Your task to perform on an android device: How big is the universe? Image 0: 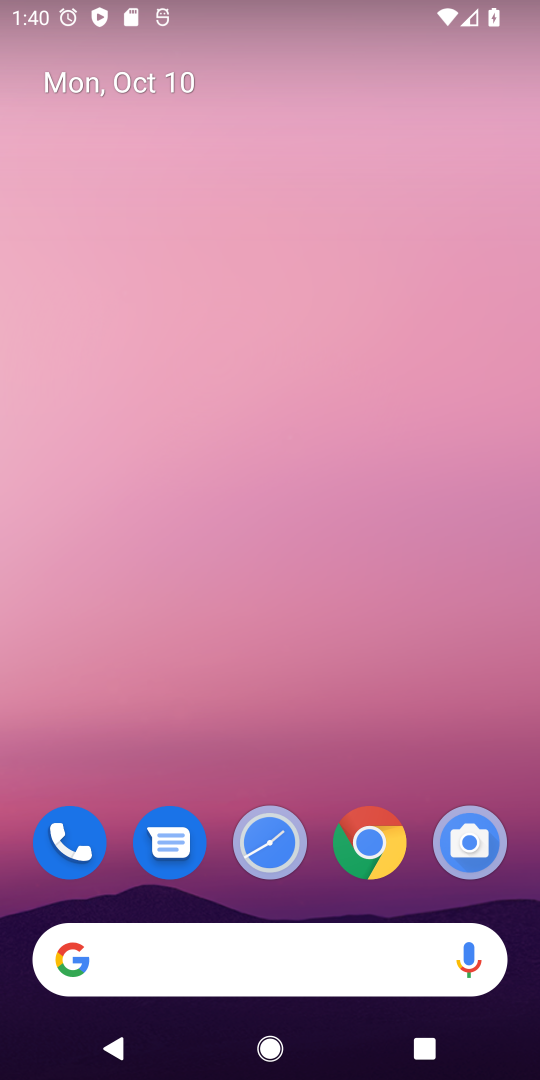
Step 0: click (361, 856)
Your task to perform on an android device: How big is the universe? Image 1: 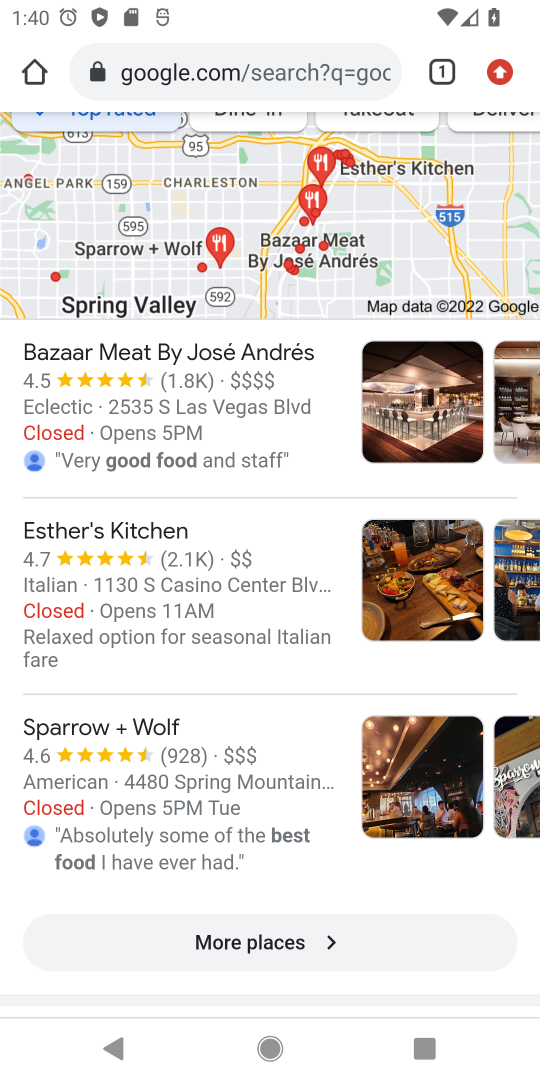
Step 1: click (228, 83)
Your task to perform on an android device: How big is the universe? Image 2: 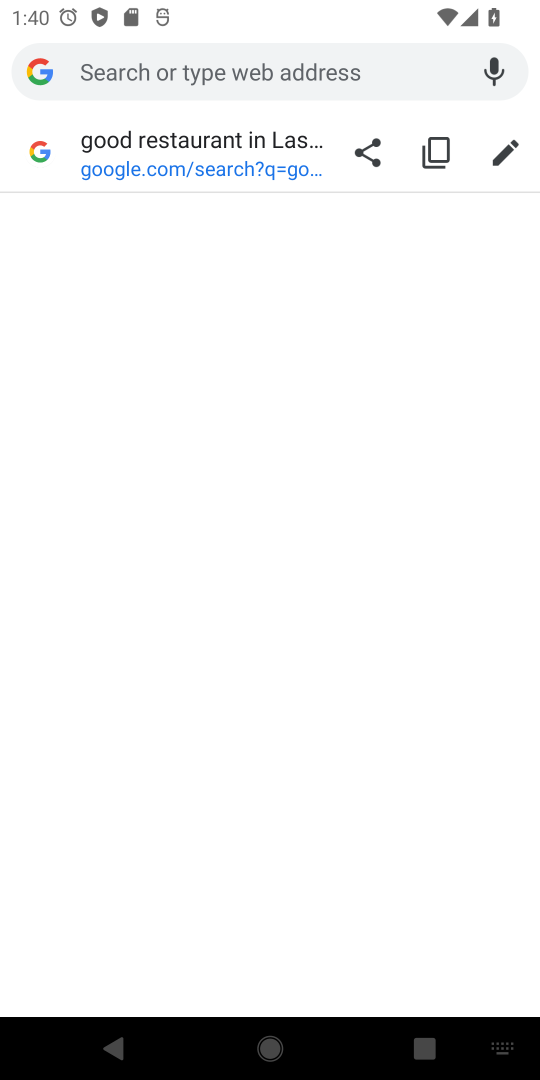
Step 2: type "how big is the universe"
Your task to perform on an android device: How big is the universe? Image 3: 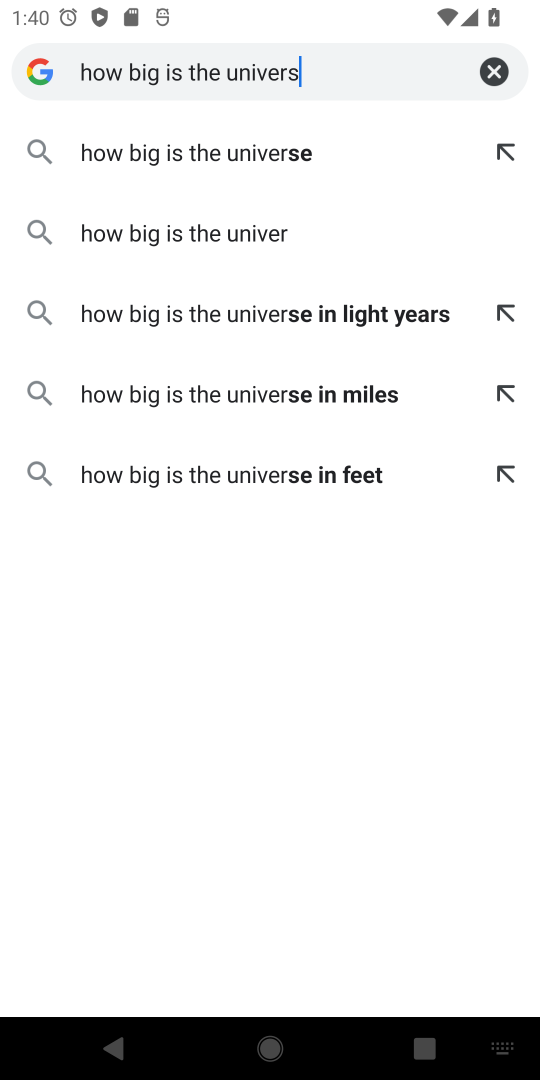
Step 3: type ""
Your task to perform on an android device: How big is the universe? Image 4: 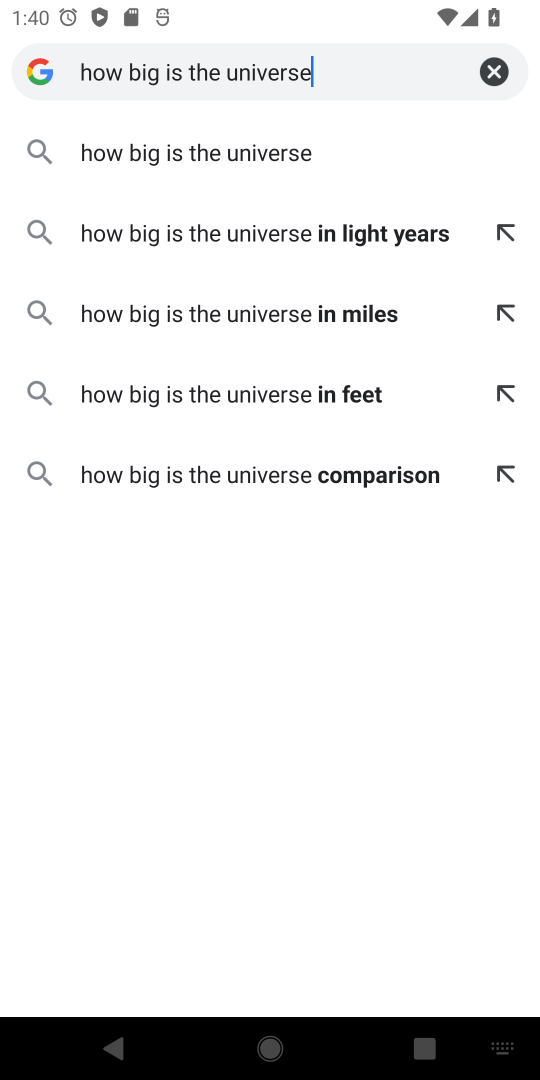
Step 4: press enter
Your task to perform on an android device: How big is the universe? Image 5: 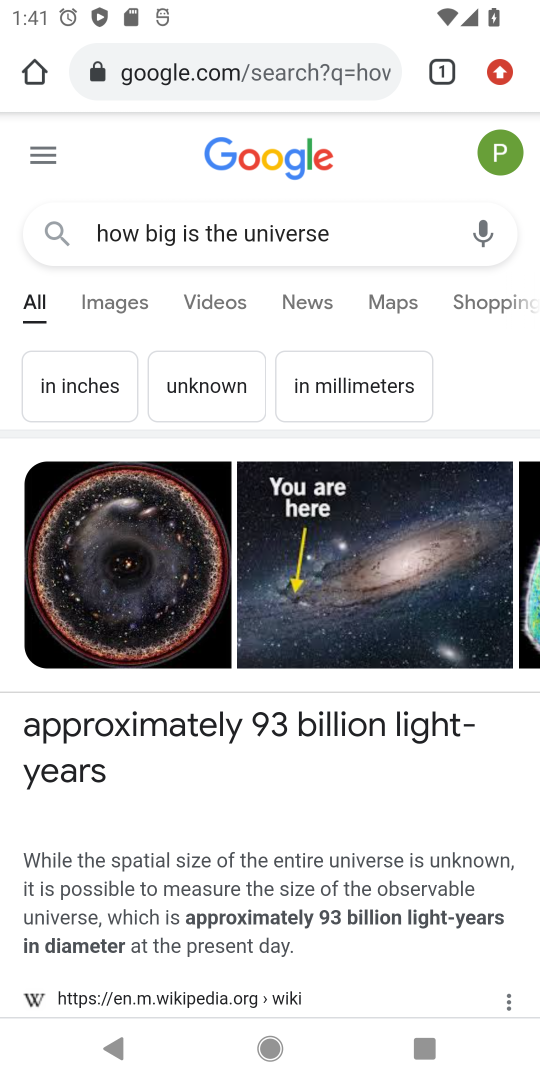
Step 5: drag from (307, 734) to (390, 368)
Your task to perform on an android device: How big is the universe? Image 6: 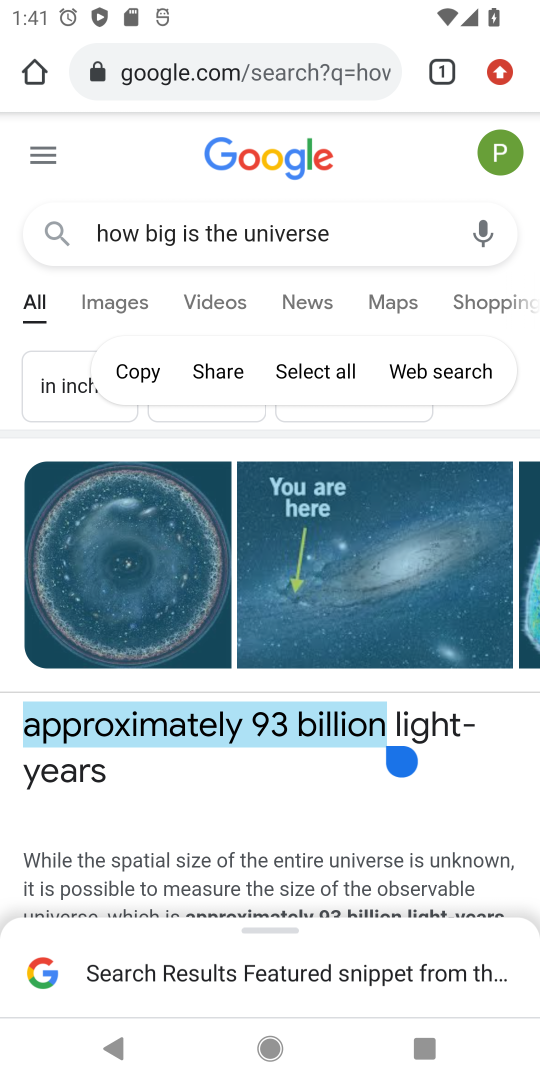
Step 6: click (350, 829)
Your task to perform on an android device: How big is the universe? Image 7: 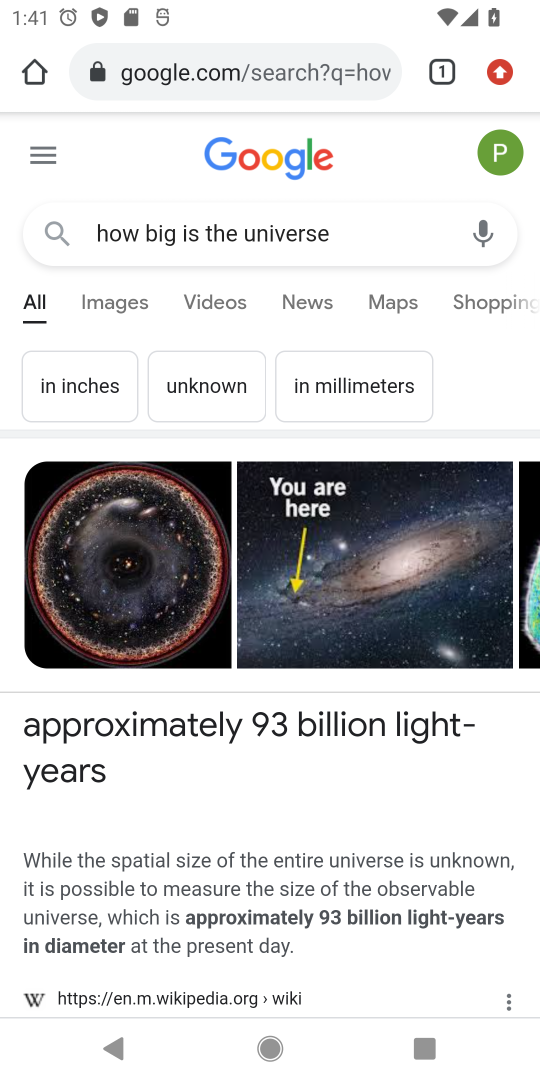
Step 7: drag from (350, 829) to (403, 534)
Your task to perform on an android device: How big is the universe? Image 8: 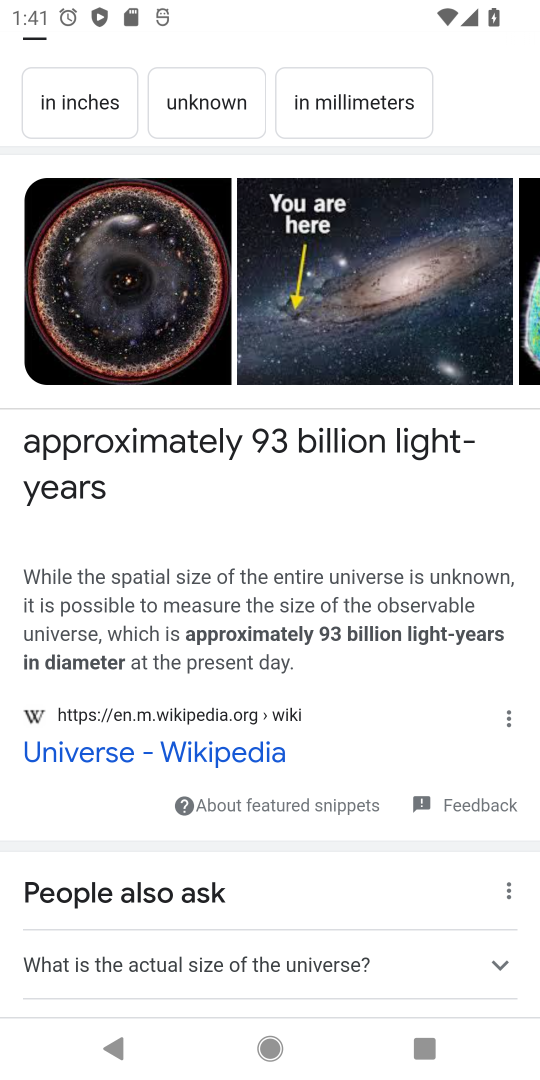
Step 8: drag from (445, 746) to (459, 531)
Your task to perform on an android device: How big is the universe? Image 9: 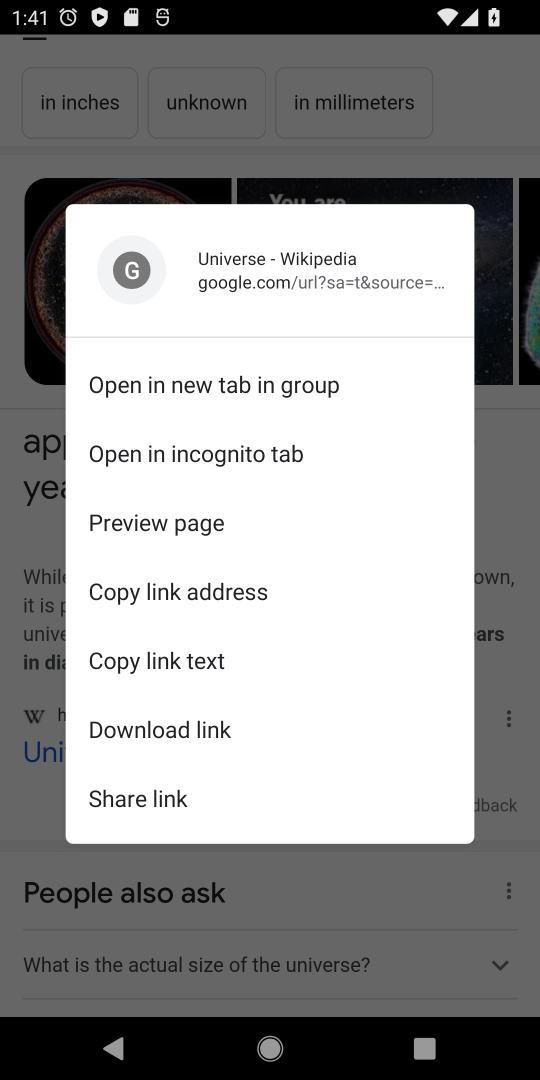
Step 9: click (59, 607)
Your task to perform on an android device: How big is the universe? Image 10: 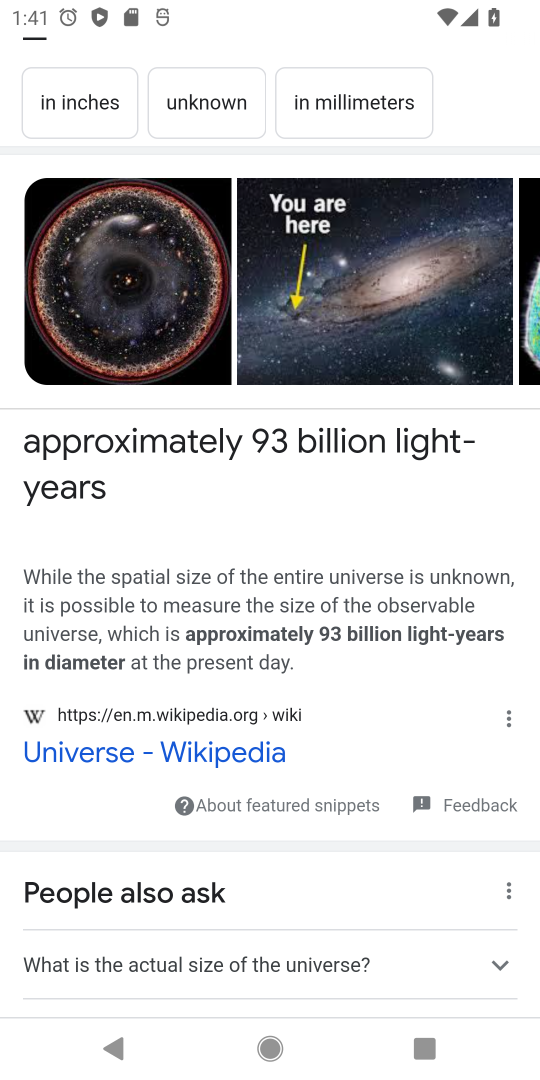
Step 10: task complete